Your task to perform on an android device: Open eBay Image 0: 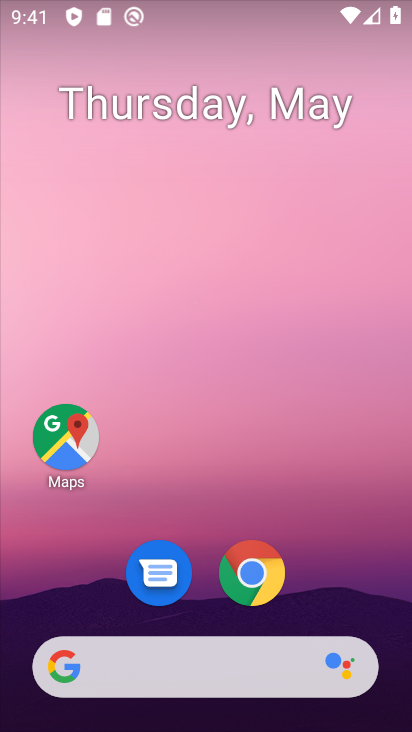
Step 0: click (241, 559)
Your task to perform on an android device: Open eBay Image 1: 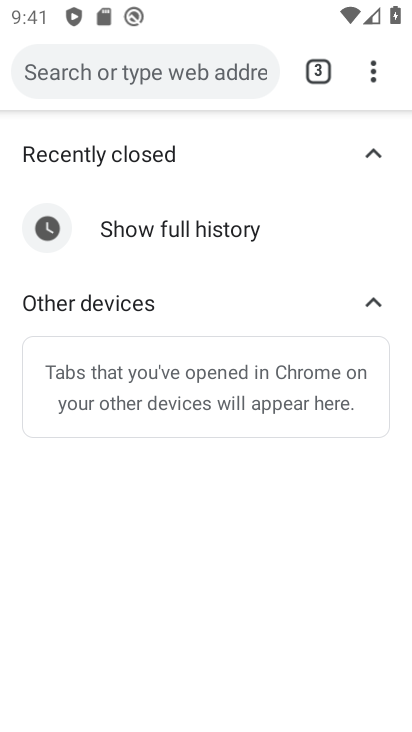
Step 1: click (239, 62)
Your task to perform on an android device: Open eBay Image 2: 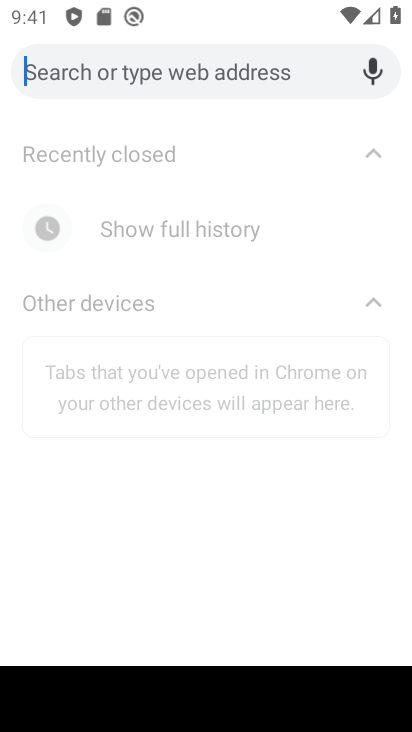
Step 2: type "eBay"
Your task to perform on an android device: Open eBay Image 3: 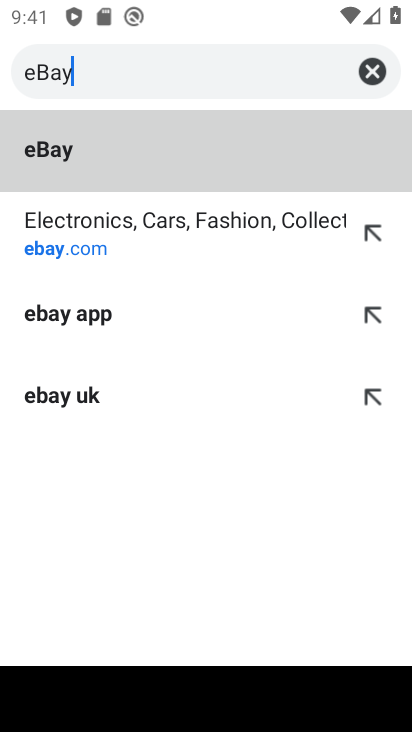
Step 3: click (115, 170)
Your task to perform on an android device: Open eBay Image 4: 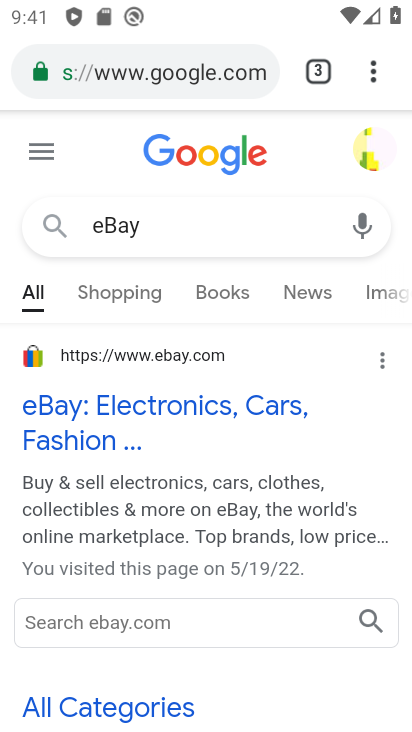
Step 4: click (73, 410)
Your task to perform on an android device: Open eBay Image 5: 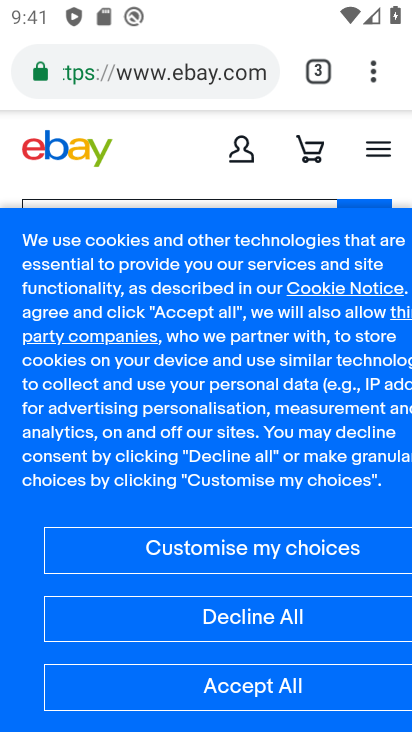
Step 5: task complete